Your task to perform on an android device: check google app version Image 0: 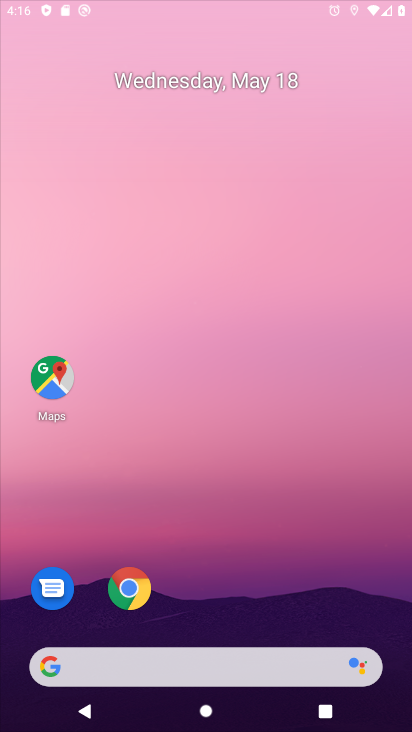
Step 0: click (380, 276)
Your task to perform on an android device: check google app version Image 1: 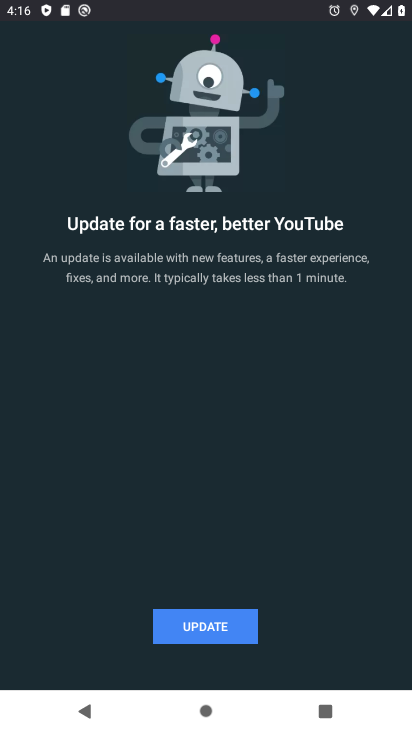
Step 1: press home button
Your task to perform on an android device: check google app version Image 2: 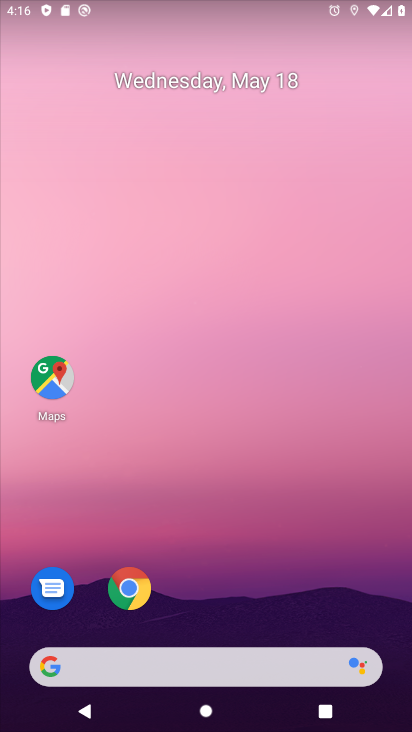
Step 2: drag from (243, 590) to (334, 39)
Your task to perform on an android device: check google app version Image 3: 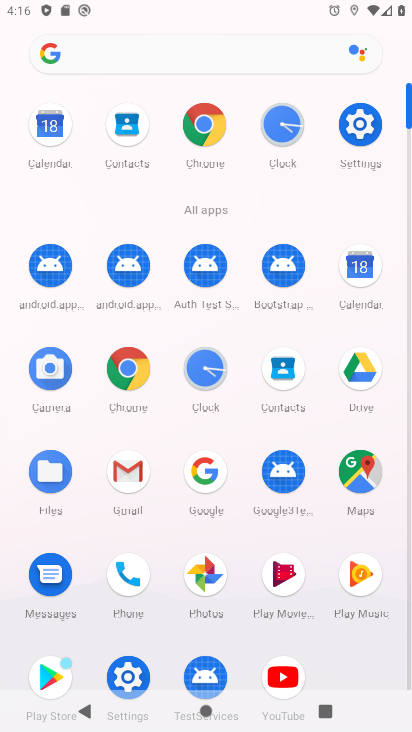
Step 3: click (203, 479)
Your task to perform on an android device: check google app version Image 4: 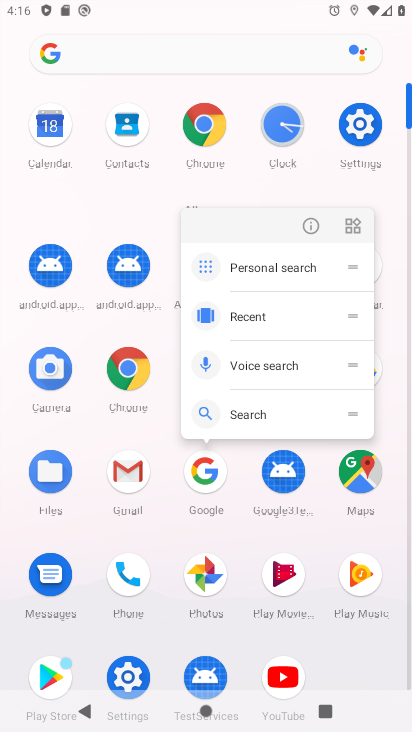
Step 4: click (315, 234)
Your task to perform on an android device: check google app version Image 5: 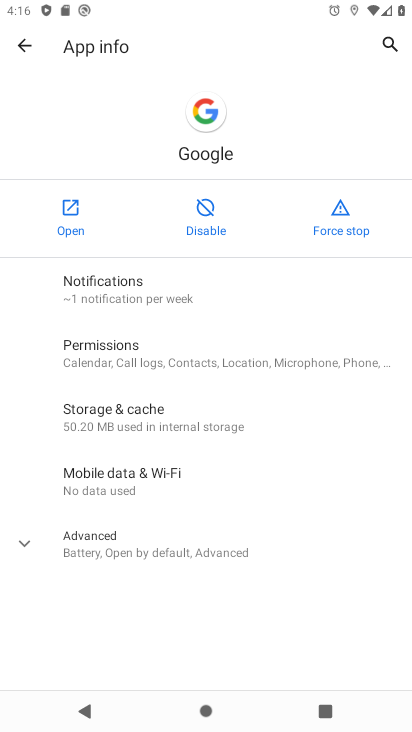
Step 5: drag from (218, 595) to (245, 199)
Your task to perform on an android device: check google app version Image 6: 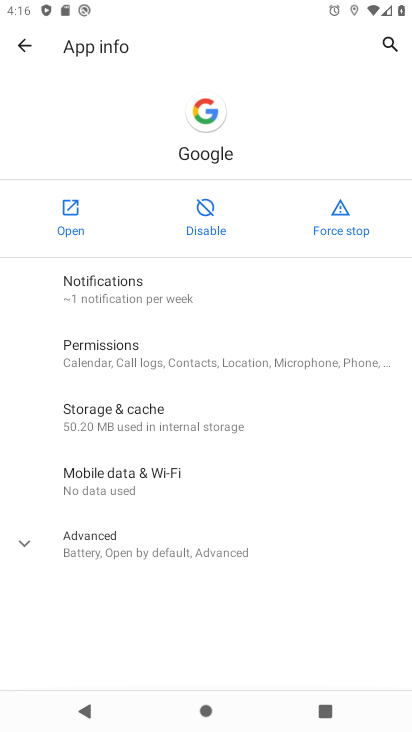
Step 6: click (95, 521)
Your task to perform on an android device: check google app version Image 7: 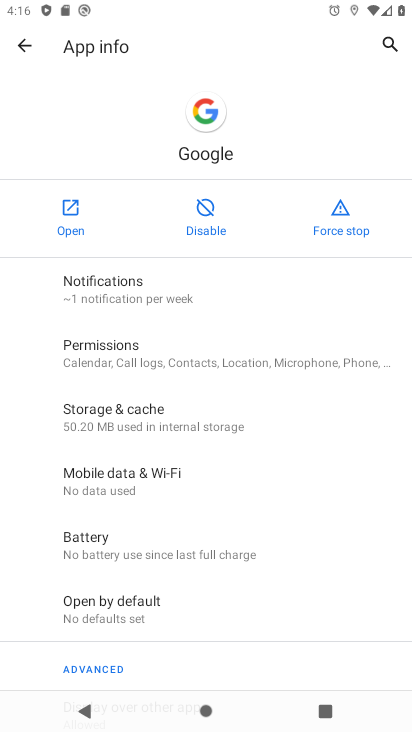
Step 7: task complete